Your task to perform on an android device: Go to Android settings Image 0: 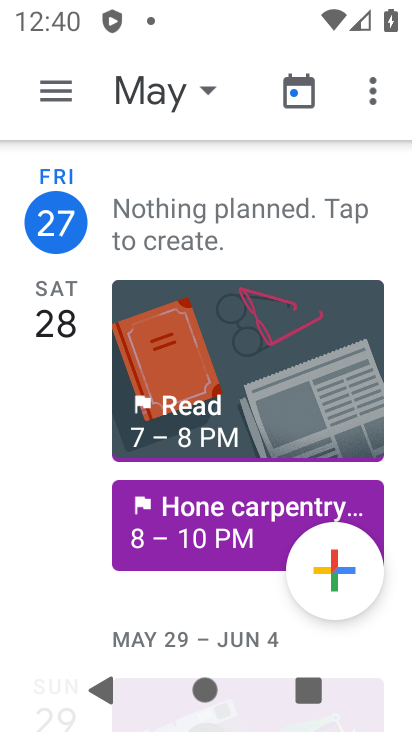
Step 0: press home button
Your task to perform on an android device: Go to Android settings Image 1: 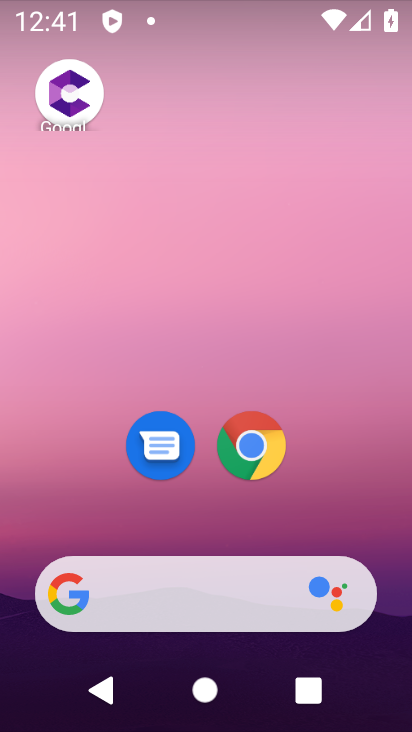
Step 1: drag from (202, 507) to (213, 29)
Your task to perform on an android device: Go to Android settings Image 2: 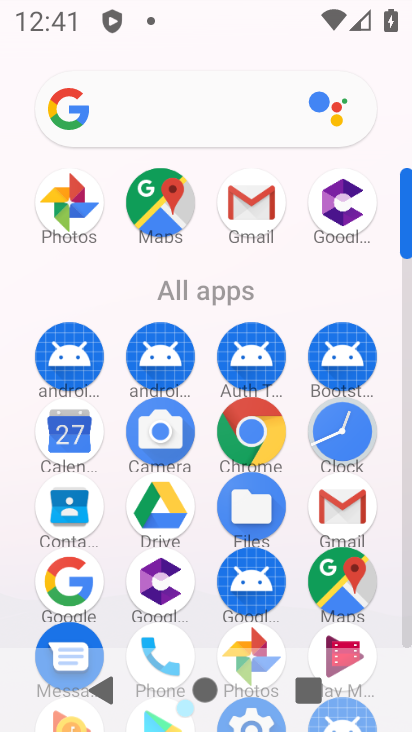
Step 2: drag from (303, 537) to (299, 4)
Your task to perform on an android device: Go to Android settings Image 3: 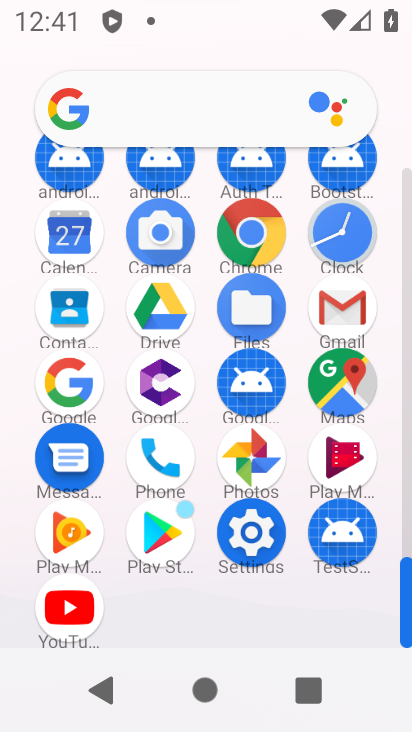
Step 3: click (235, 541)
Your task to perform on an android device: Go to Android settings Image 4: 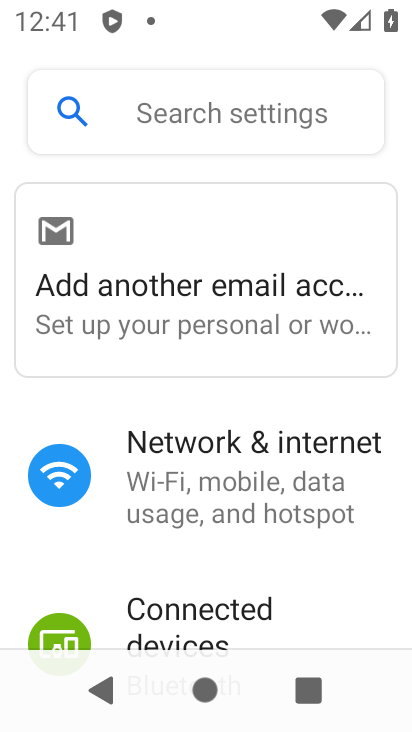
Step 4: drag from (172, 603) to (166, 57)
Your task to perform on an android device: Go to Android settings Image 5: 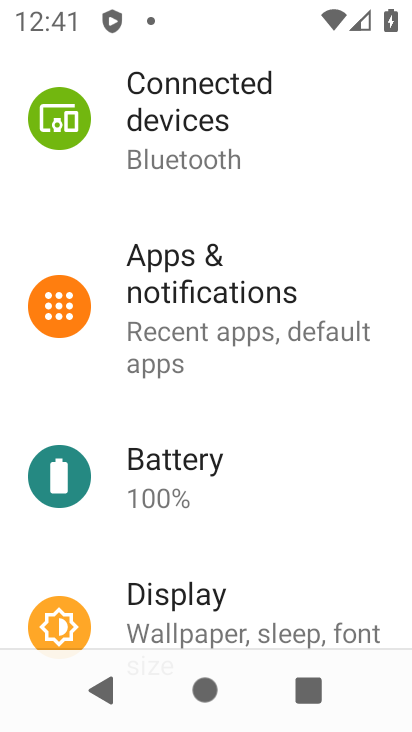
Step 5: drag from (174, 573) to (143, 138)
Your task to perform on an android device: Go to Android settings Image 6: 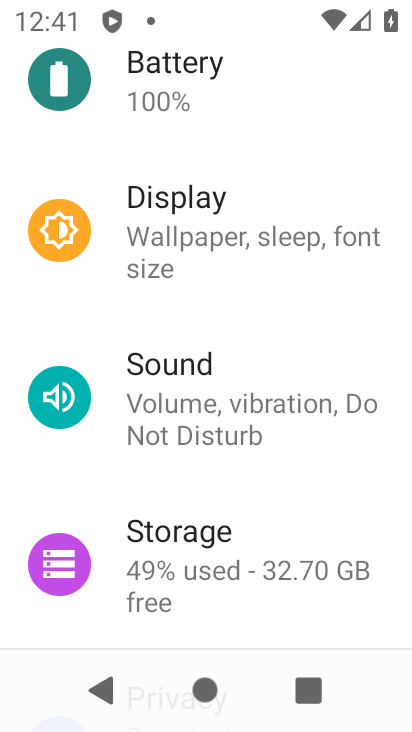
Step 6: drag from (198, 552) to (155, 27)
Your task to perform on an android device: Go to Android settings Image 7: 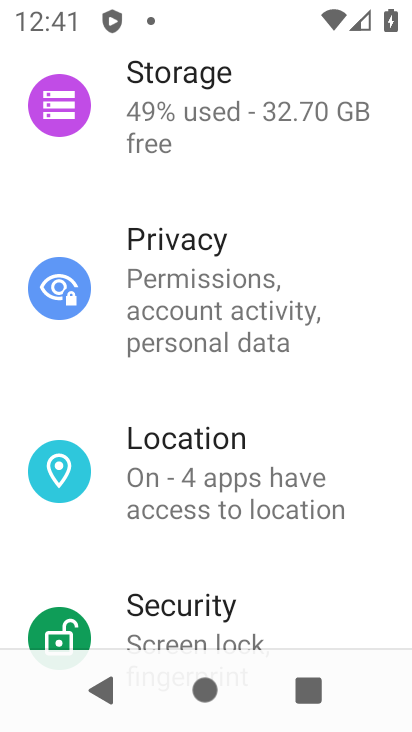
Step 7: drag from (189, 617) to (179, 42)
Your task to perform on an android device: Go to Android settings Image 8: 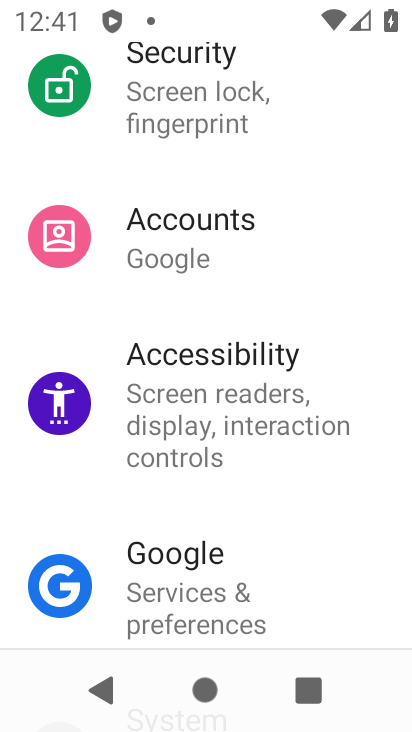
Step 8: drag from (185, 595) to (136, 107)
Your task to perform on an android device: Go to Android settings Image 9: 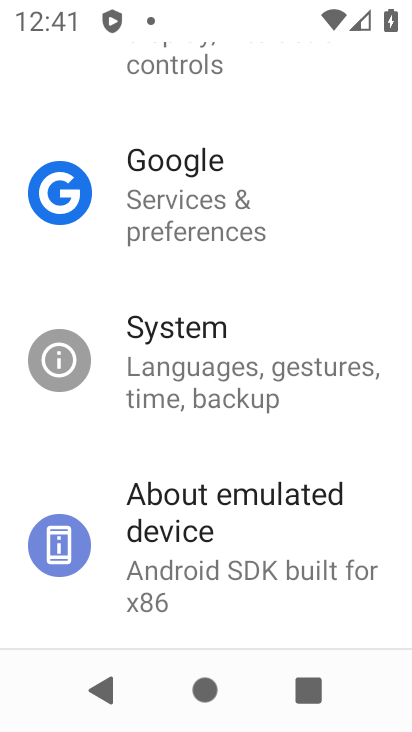
Step 9: click (124, 334)
Your task to perform on an android device: Go to Android settings Image 10: 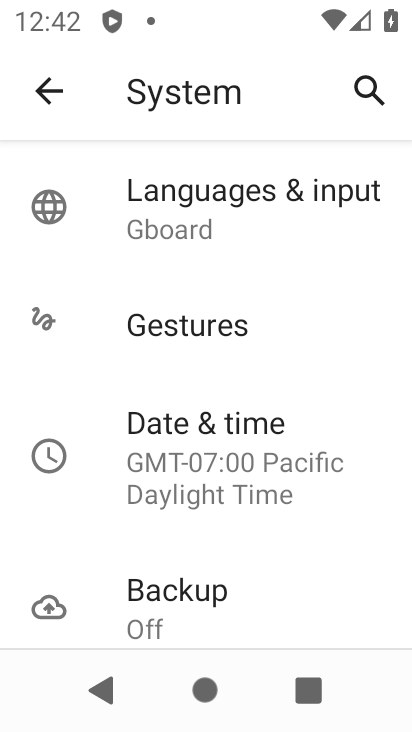
Step 10: task complete